Your task to perform on an android device: toggle priority inbox in the gmail app Image 0: 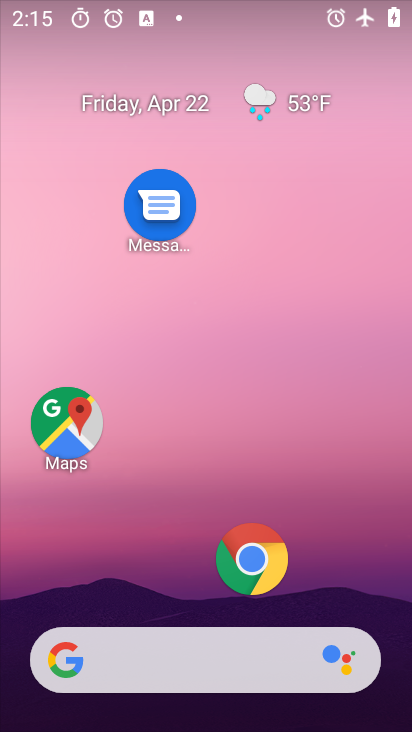
Step 0: drag from (178, 629) to (278, 162)
Your task to perform on an android device: toggle priority inbox in the gmail app Image 1: 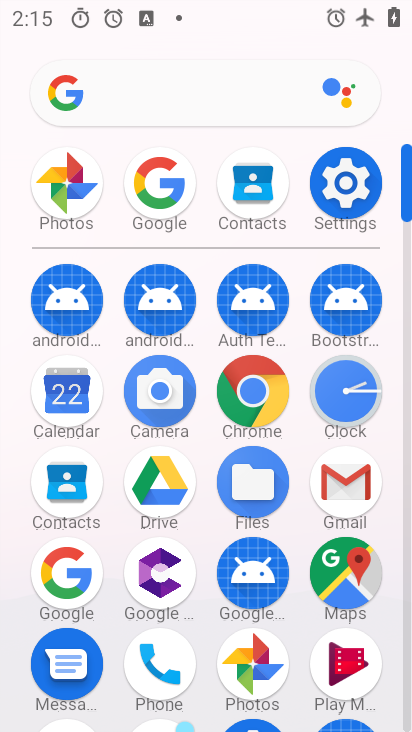
Step 1: click (161, 177)
Your task to perform on an android device: toggle priority inbox in the gmail app Image 2: 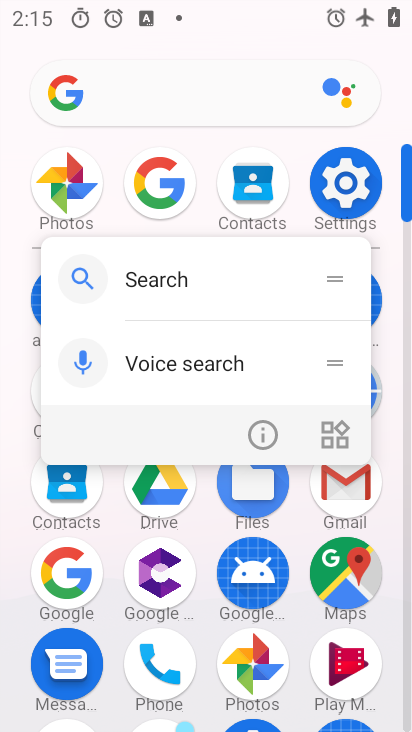
Step 2: click (161, 177)
Your task to perform on an android device: toggle priority inbox in the gmail app Image 3: 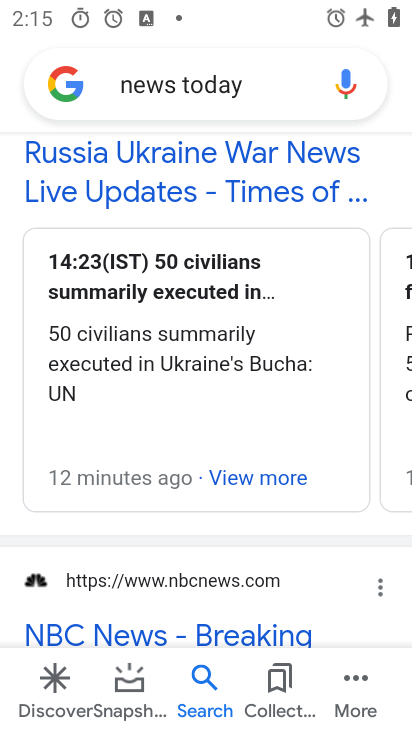
Step 3: task complete